Your task to perform on an android device: Go to wifi settings Image 0: 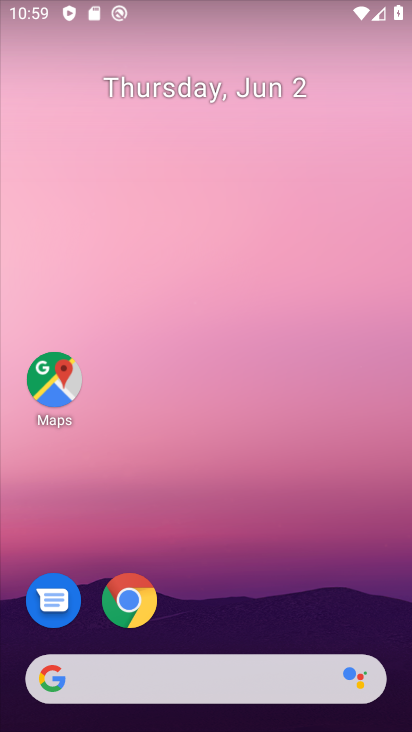
Step 0: drag from (257, 598) to (265, 413)
Your task to perform on an android device: Go to wifi settings Image 1: 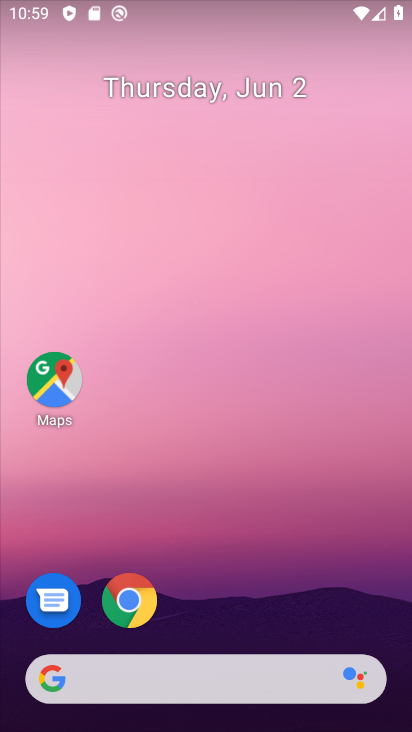
Step 1: drag from (249, 581) to (227, 58)
Your task to perform on an android device: Go to wifi settings Image 2: 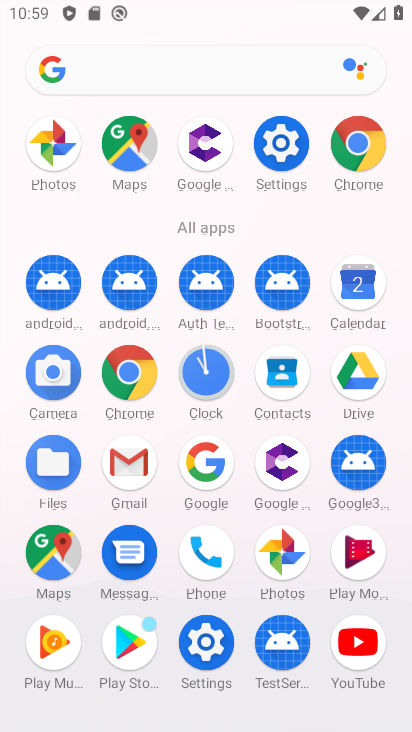
Step 2: click (278, 148)
Your task to perform on an android device: Go to wifi settings Image 3: 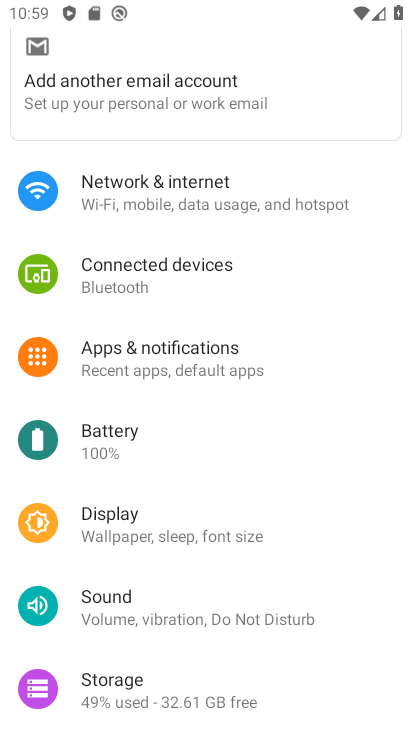
Step 3: click (228, 184)
Your task to perform on an android device: Go to wifi settings Image 4: 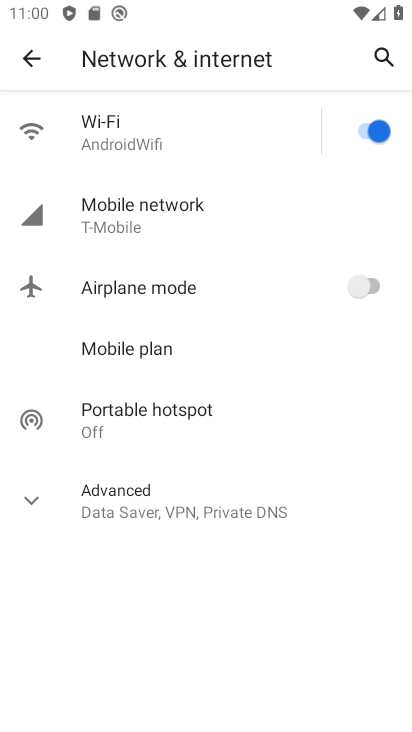
Step 4: click (137, 136)
Your task to perform on an android device: Go to wifi settings Image 5: 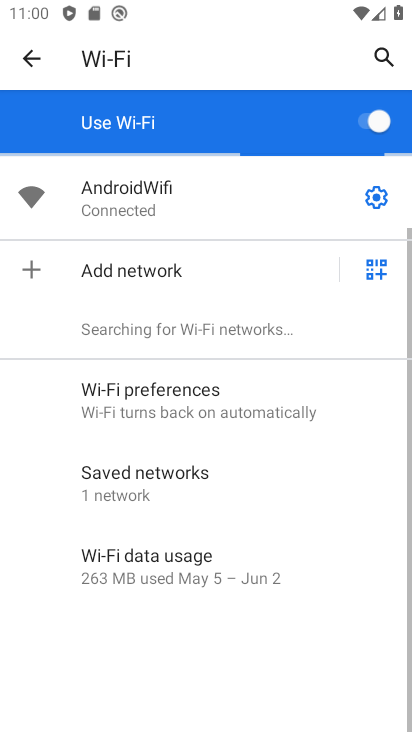
Step 5: task complete